Your task to perform on an android device: Open calendar and show me the fourth week of next month Image 0: 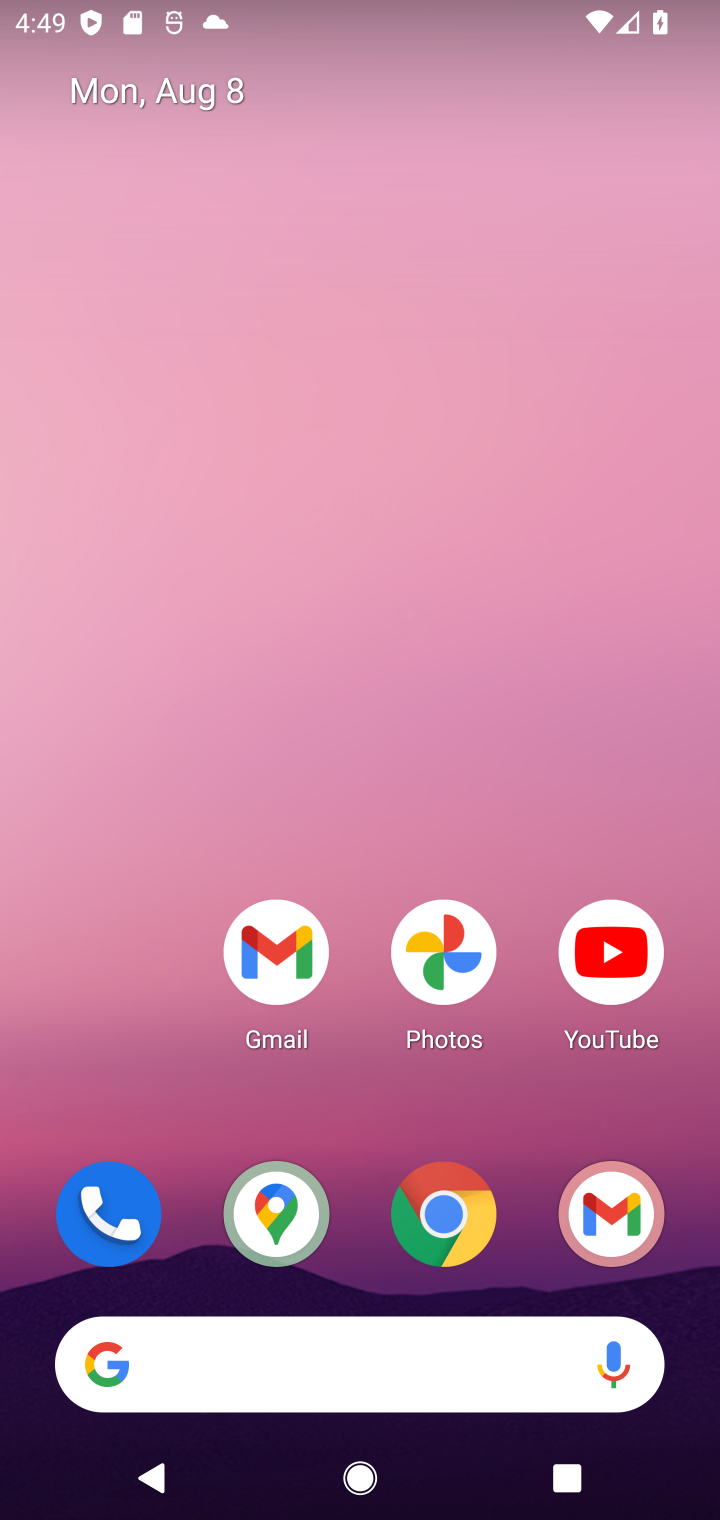
Step 0: drag from (381, 1295) to (354, 182)
Your task to perform on an android device: Open calendar and show me the fourth week of next month Image 1: 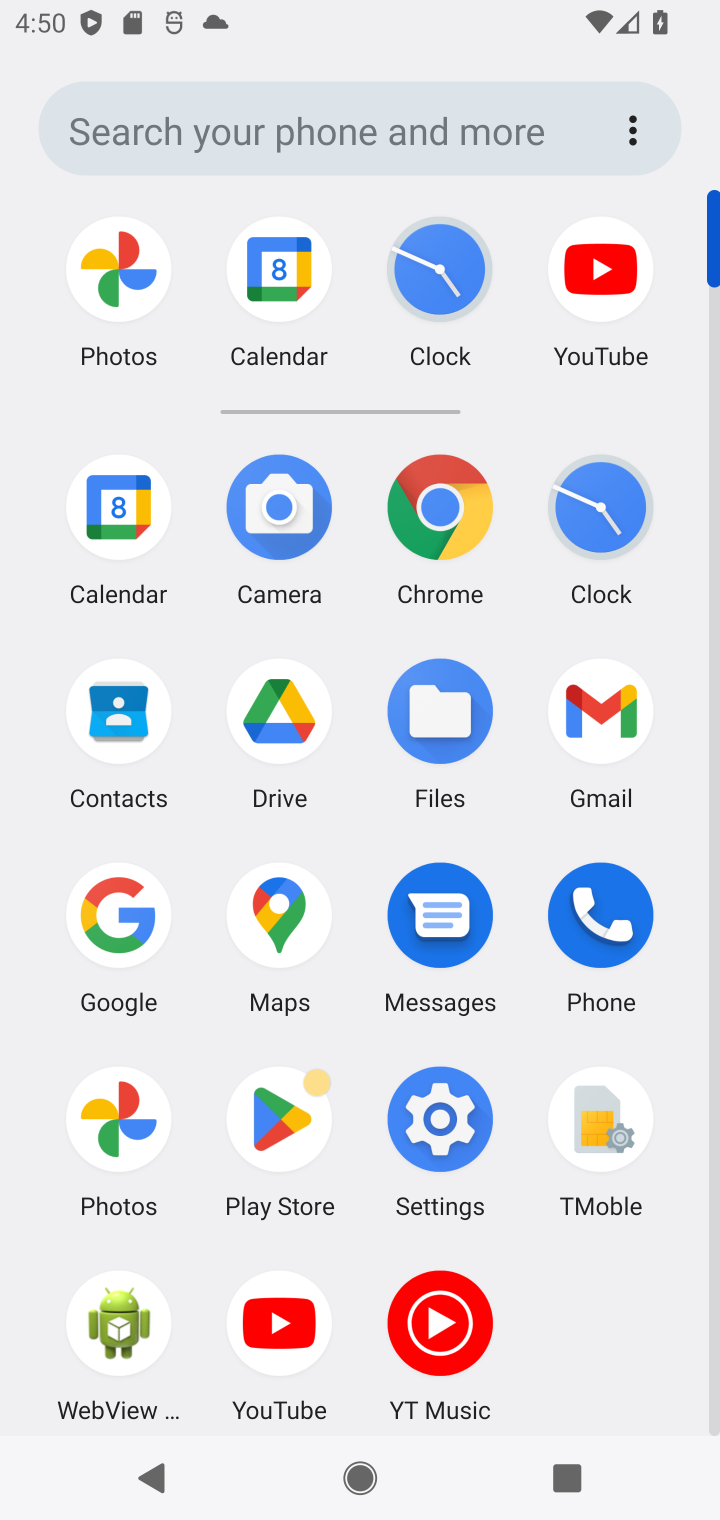
Step 1: click (108, 517)
Your task to perform on an android device: Open calendar and show me the fourth week of next month Image 2: 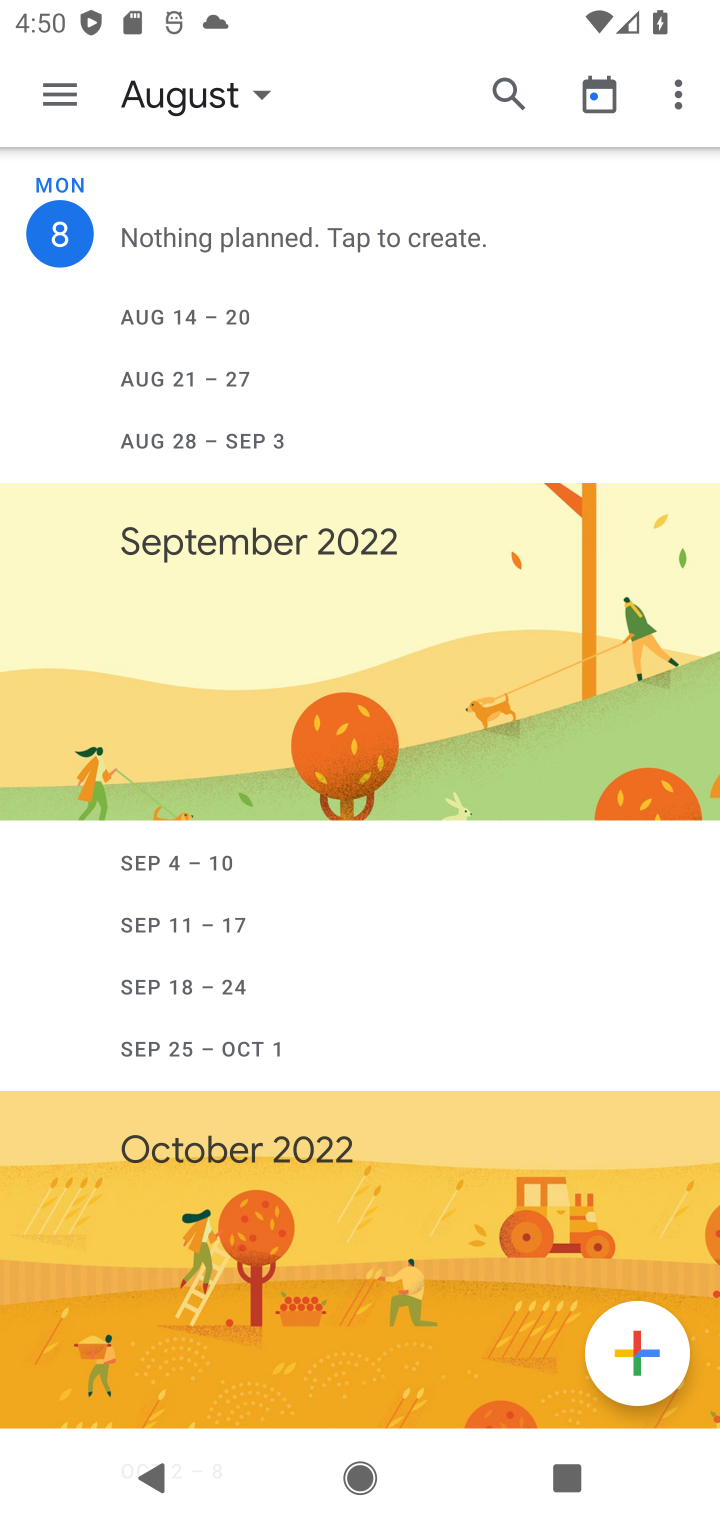
Step 2: click (250, 89)
Your task to perform on an android device: Open calendar and show me the fourth week of next month Image 3: 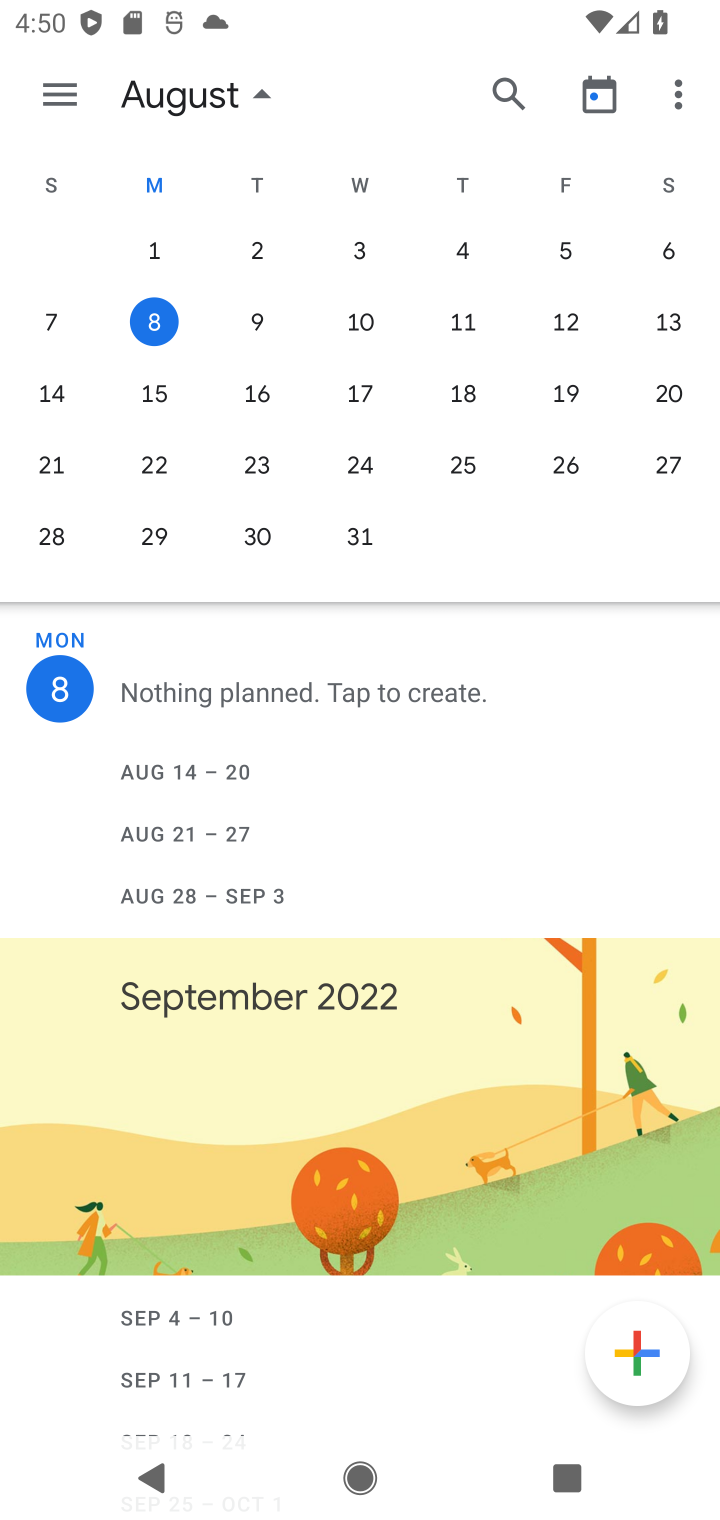
Step 3: drag from (547, 398) to (154, 387)
Your task to perform on an android device: Open calendar and show me the fourth week of next month Image 4: 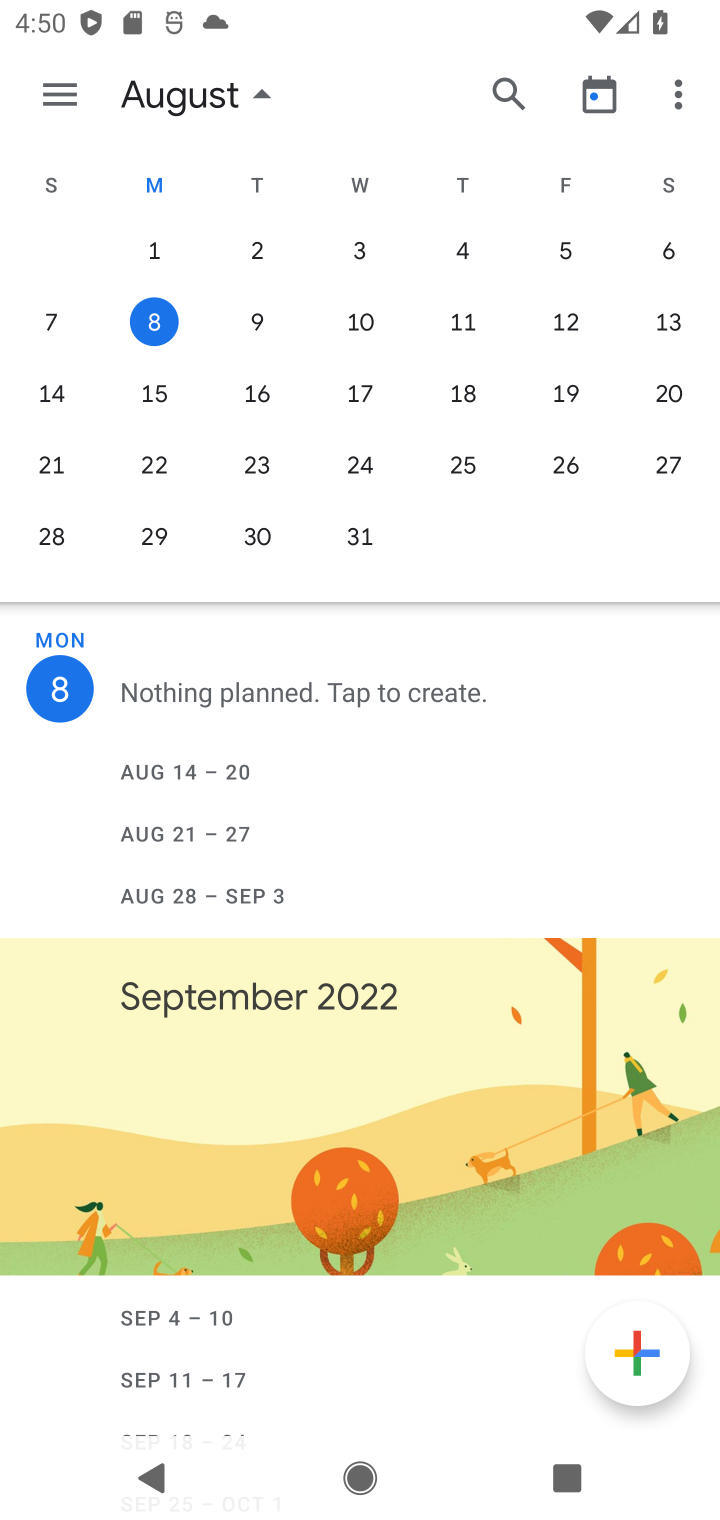
Step 4: drag from (663, 387) to (57, 380)
Your task to perform on an android device: Open calendar and show me the fourth week of next month Image 5: 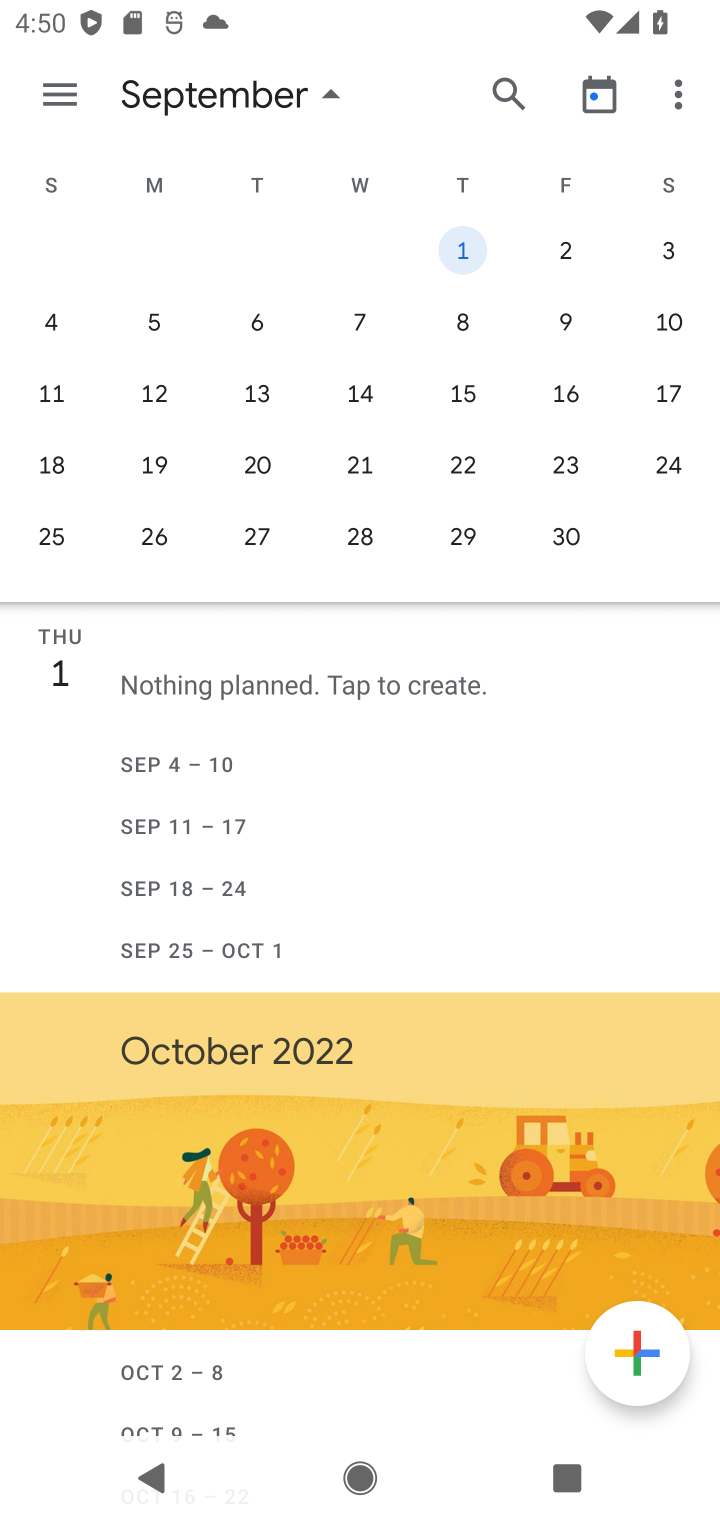
Step 5: click (157, 531)
Your task to perform on an android device: Open calendar and show me the fourth week of next month Image 6: 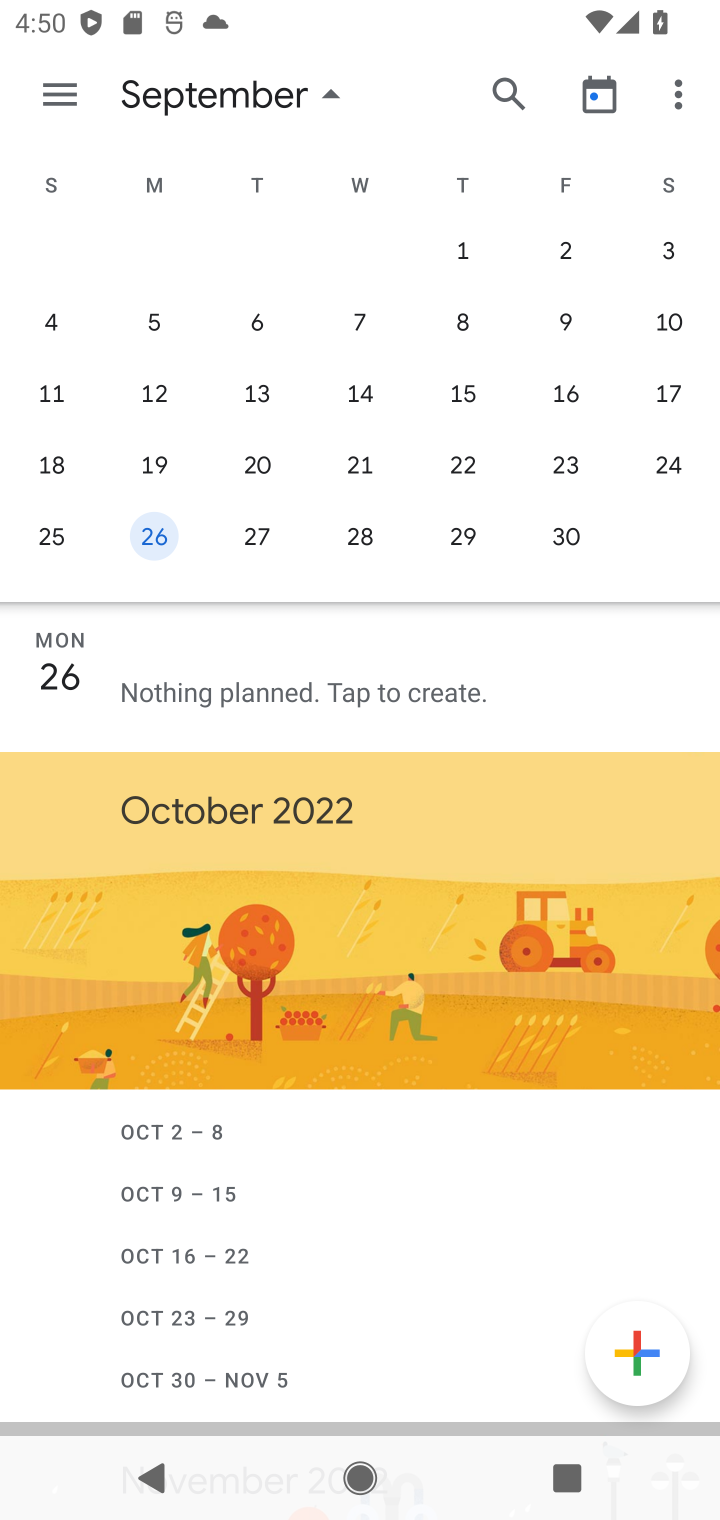
Step 6: click (51, 106)
Your task to perform on an android device: Open calendar and show me the fourth week of next month Image 7: 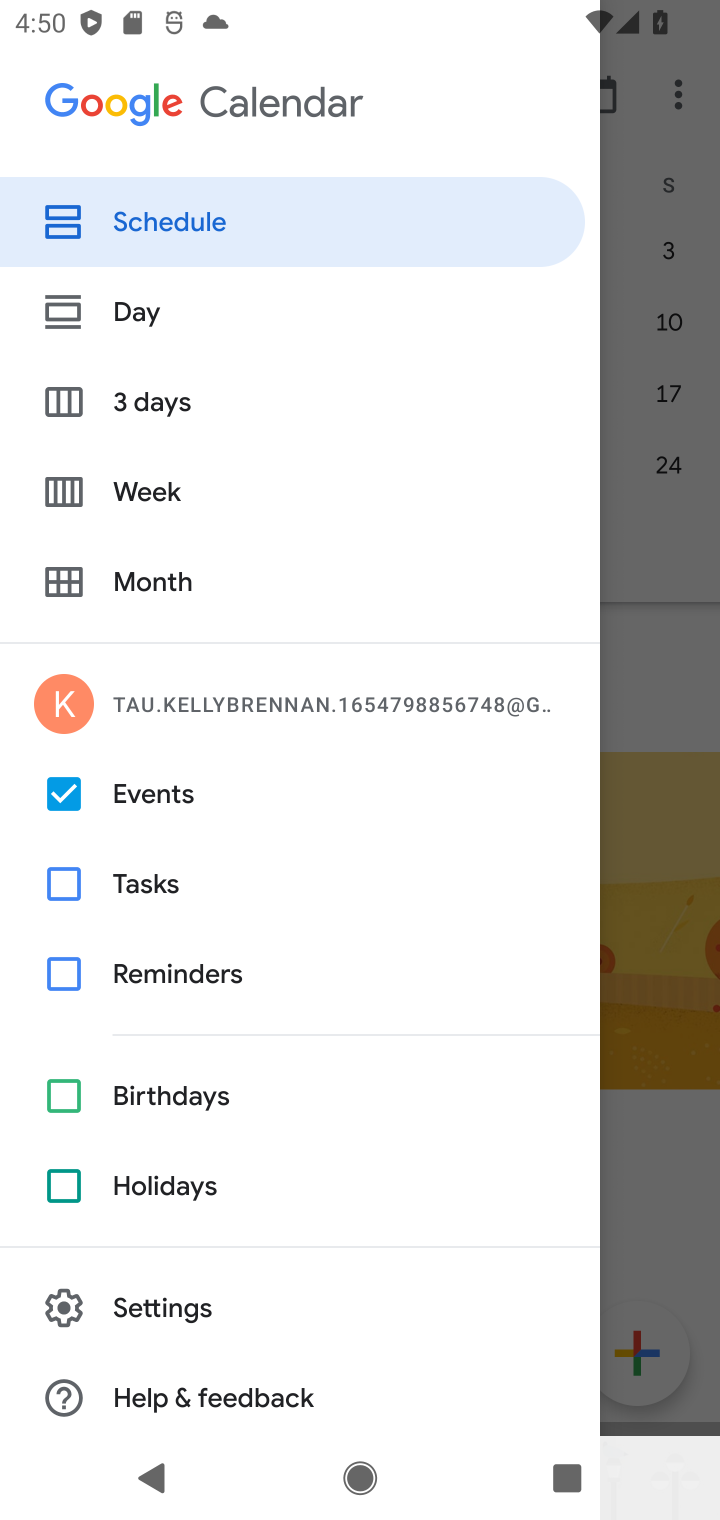
Step 7: click (144, 482)
Your task to perform on an android device: Open calendar and show me the fourth week of next month Image 8: 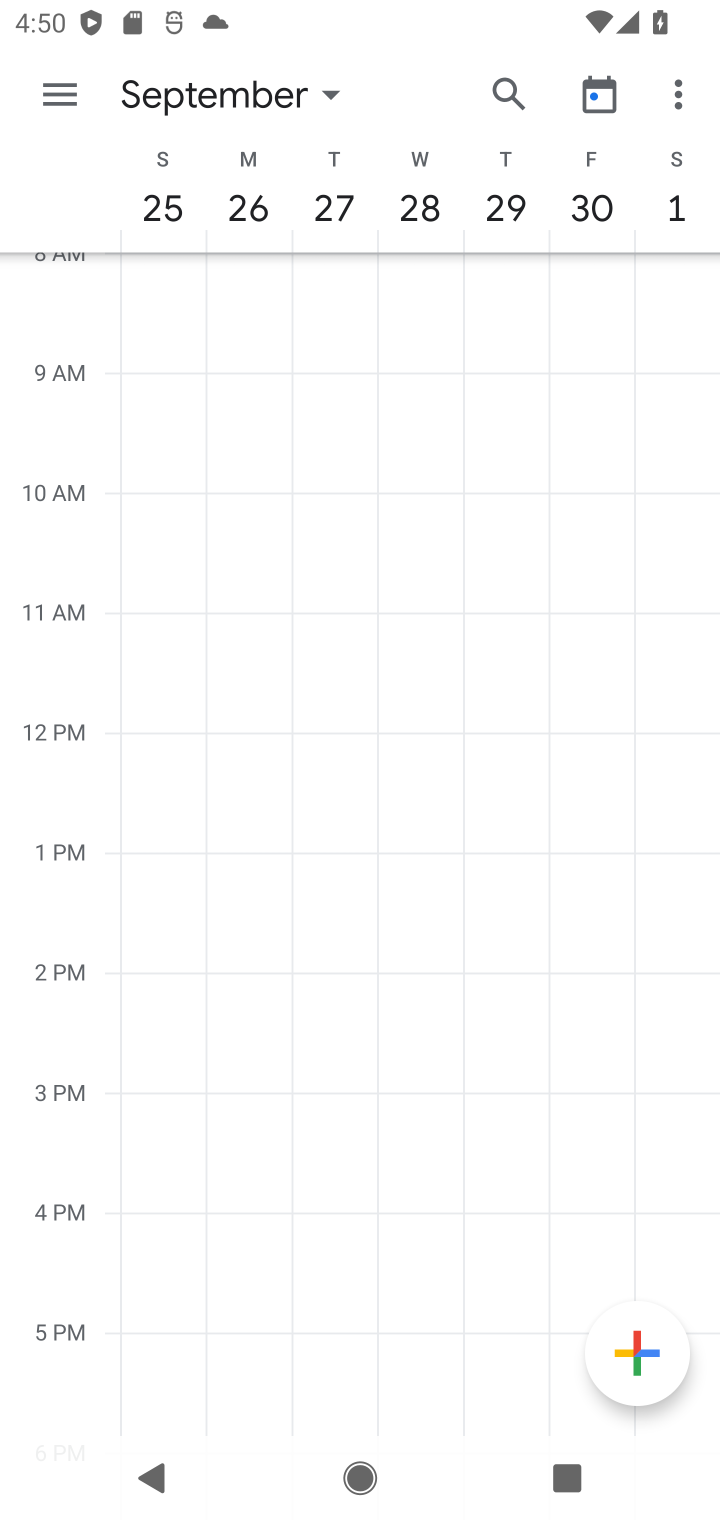
Step 8: task complete